Your task to perform on an android device: open app "PUBG MOBILE" (install if not already installed) Image 0: 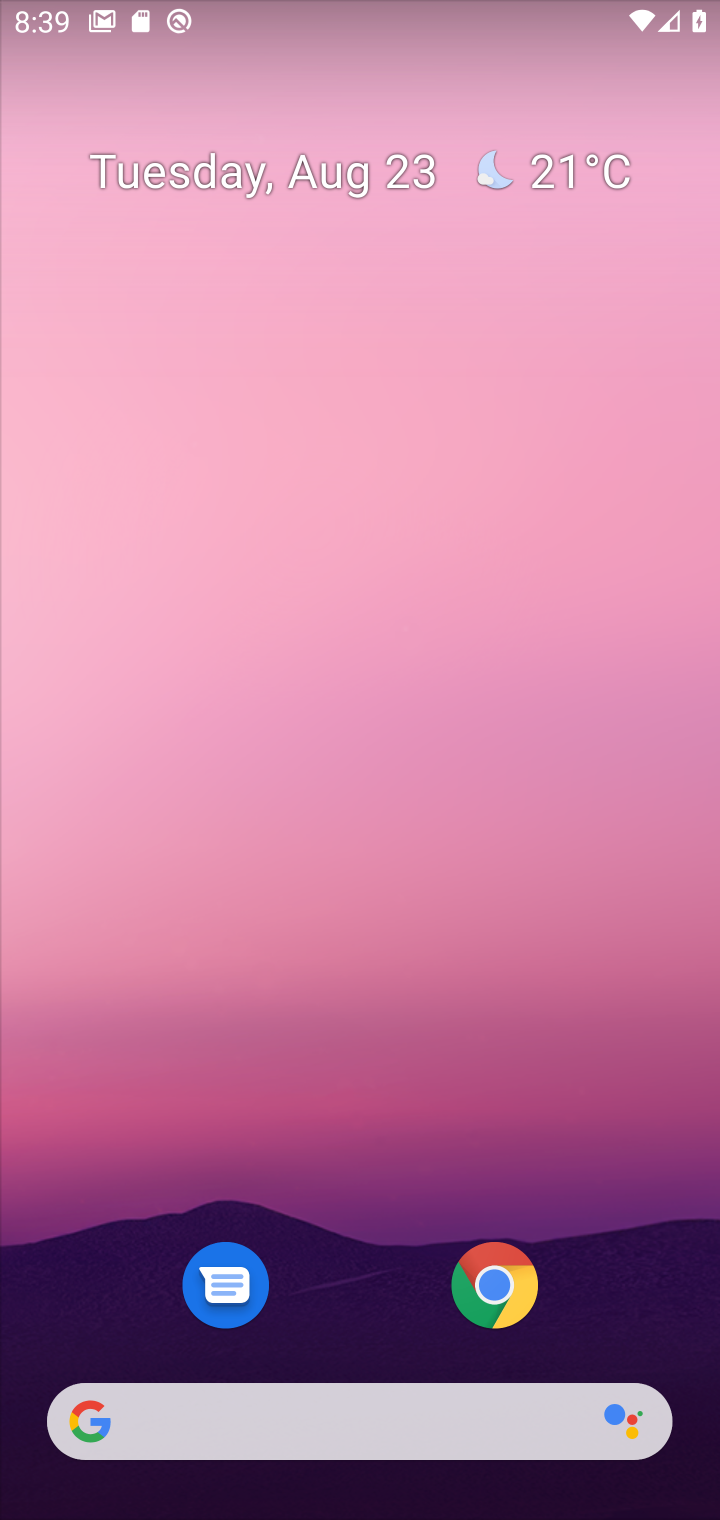
Step 0: drag from (666, 1339) to (585, 128)
Your task to perform on an android device: open app "PUBG MOBILE" (install if not already installed) Image 1: 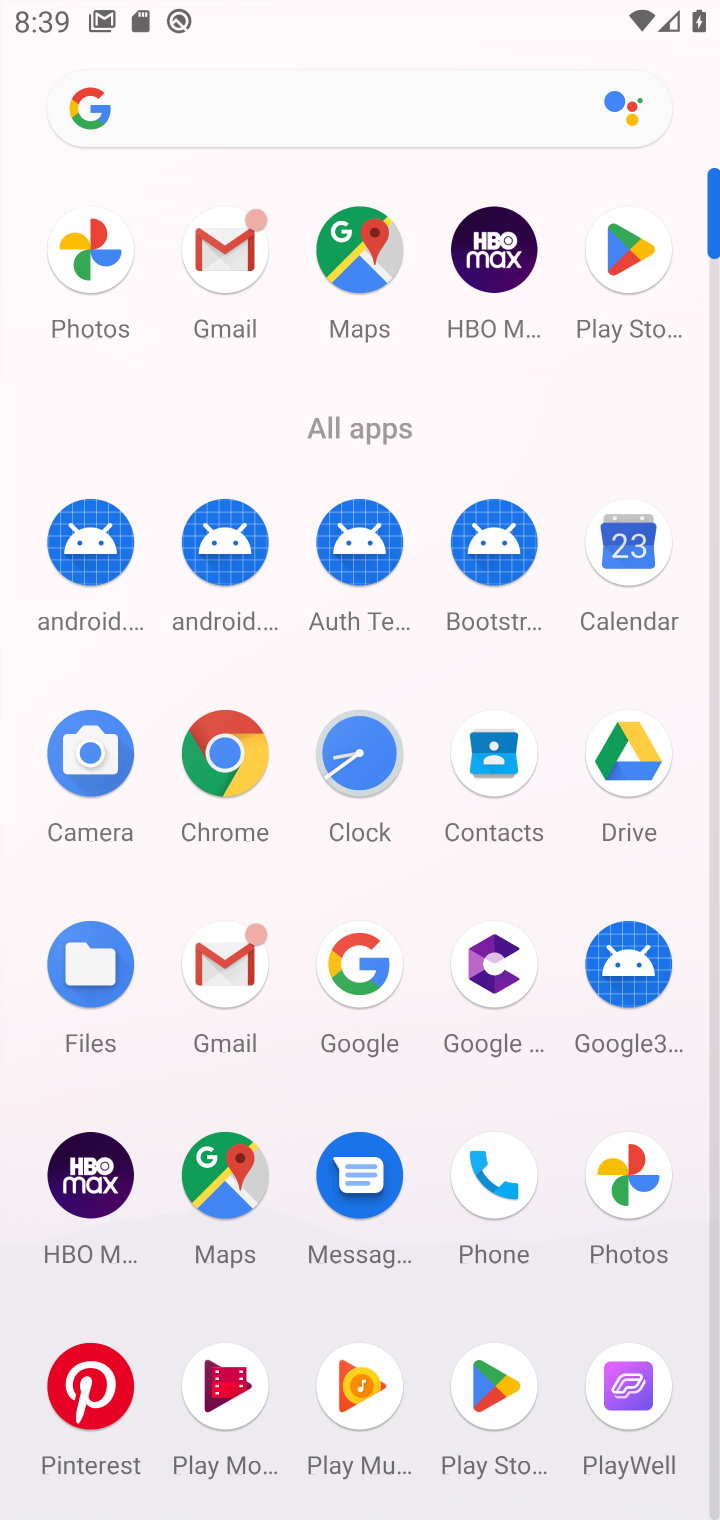
Step 1: click (501, 1389)
Your task to perform on an android device: open app "PUBG MOBILE" (install if not already installed) Image 2: 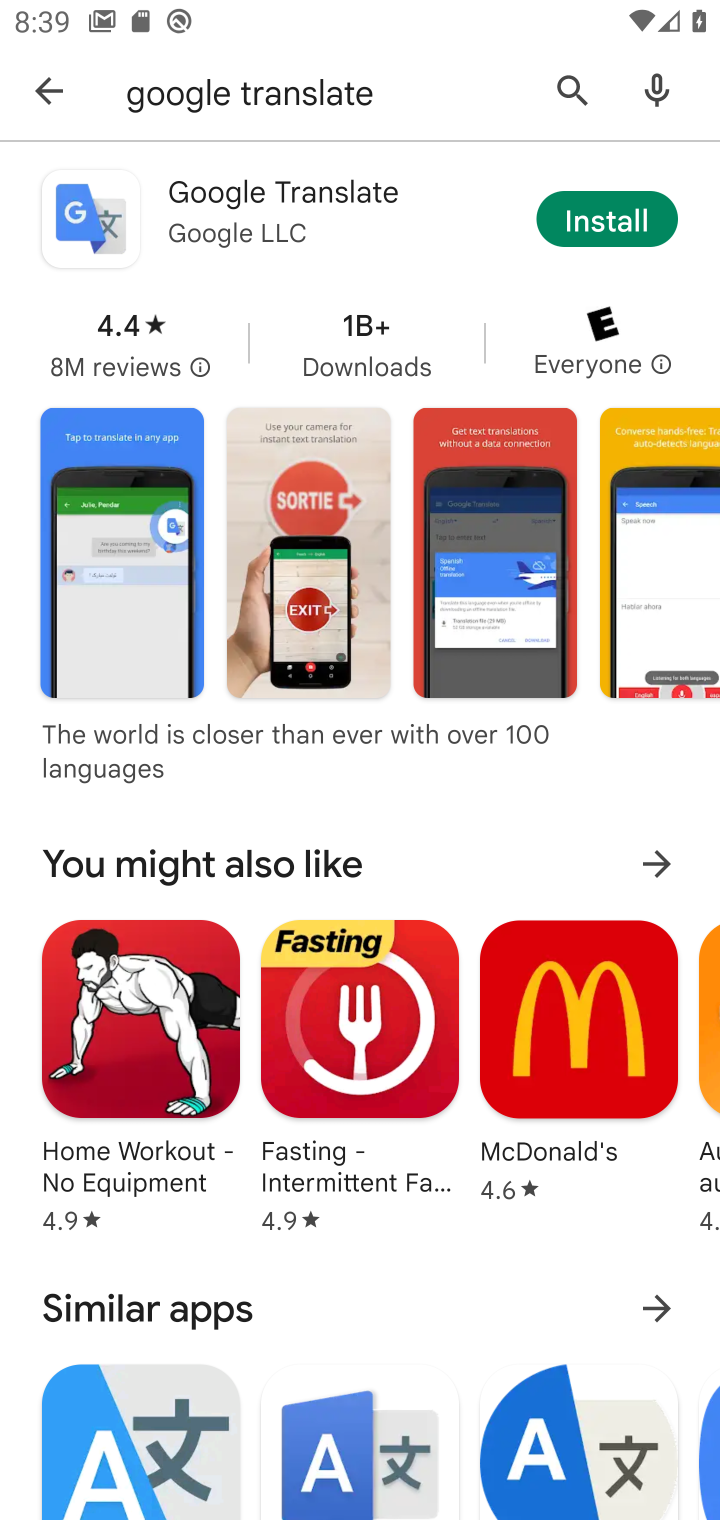
Step 2: click (569, 80)
Your task to perform on an android device: open app "PUBG MOBILE" (install if not already installed) Image 3: 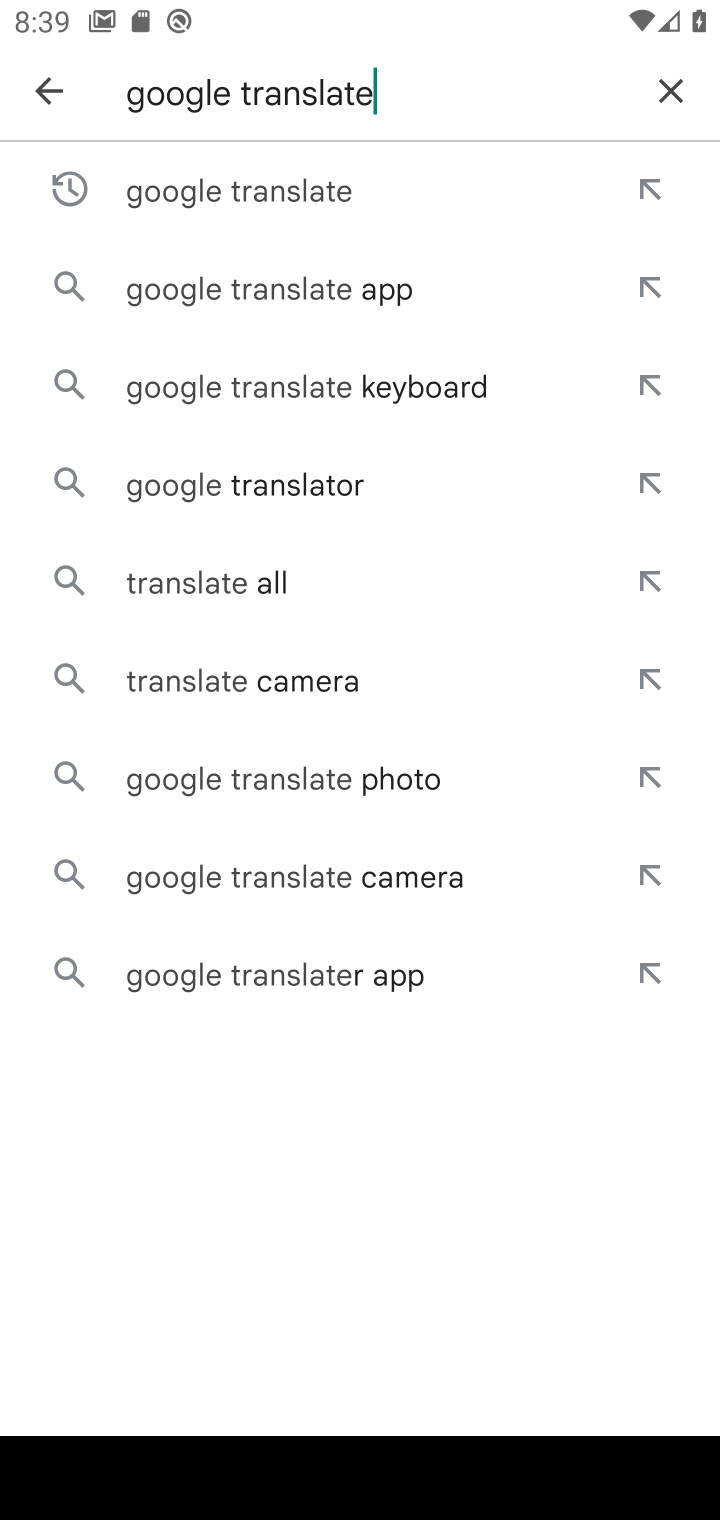
Step 3: click (659, 80)
Your task to perform on an android device: open app "PUBG MOBILE" (install if not already installed) Image 4: 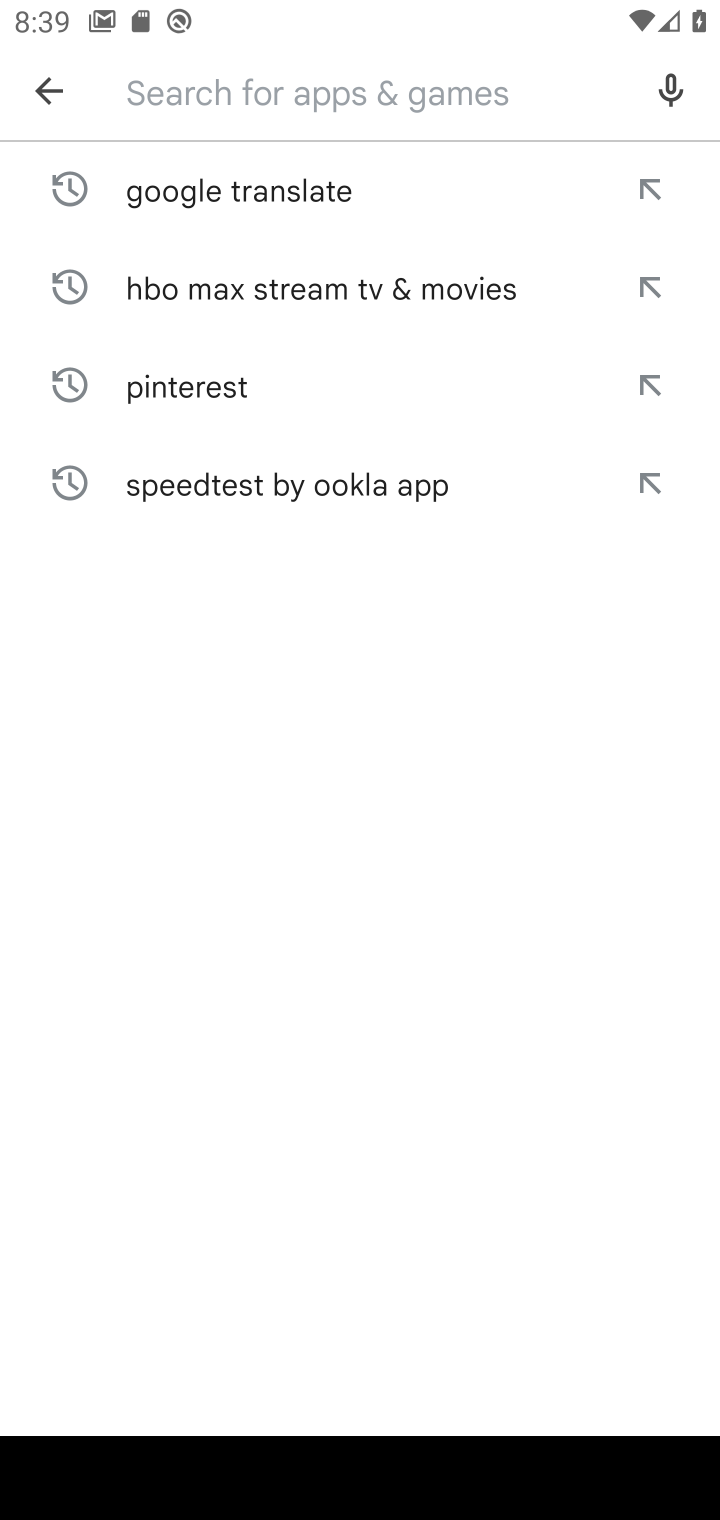
Step 4: type "PUBG MOBILE"
Your task to perform on an android device: open app "PUBG MOBILE" (install if not already installed) Image 5: 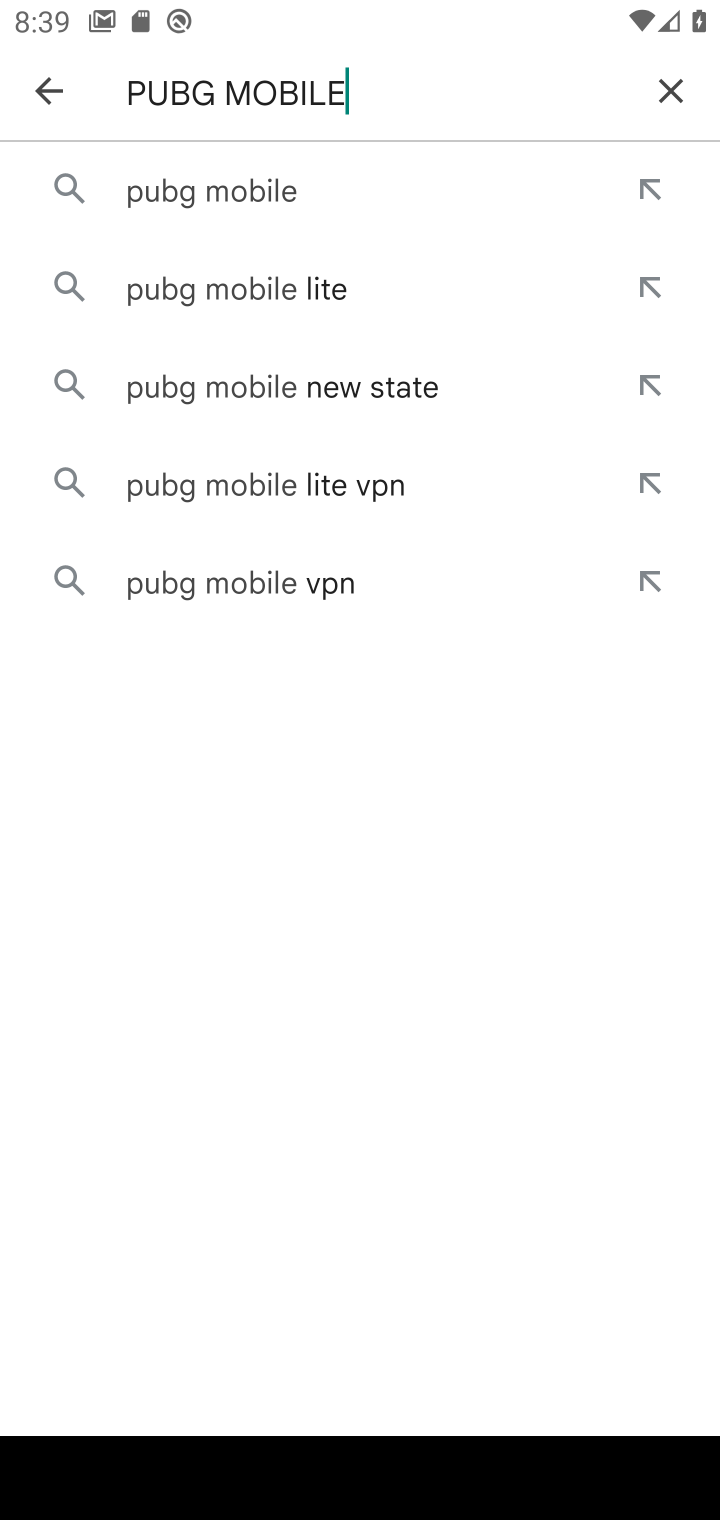
Step 5: click (177, 196)
Your task to perform on an android device: open app "PUBG MOBILE" (install if not already installed) Image 6: 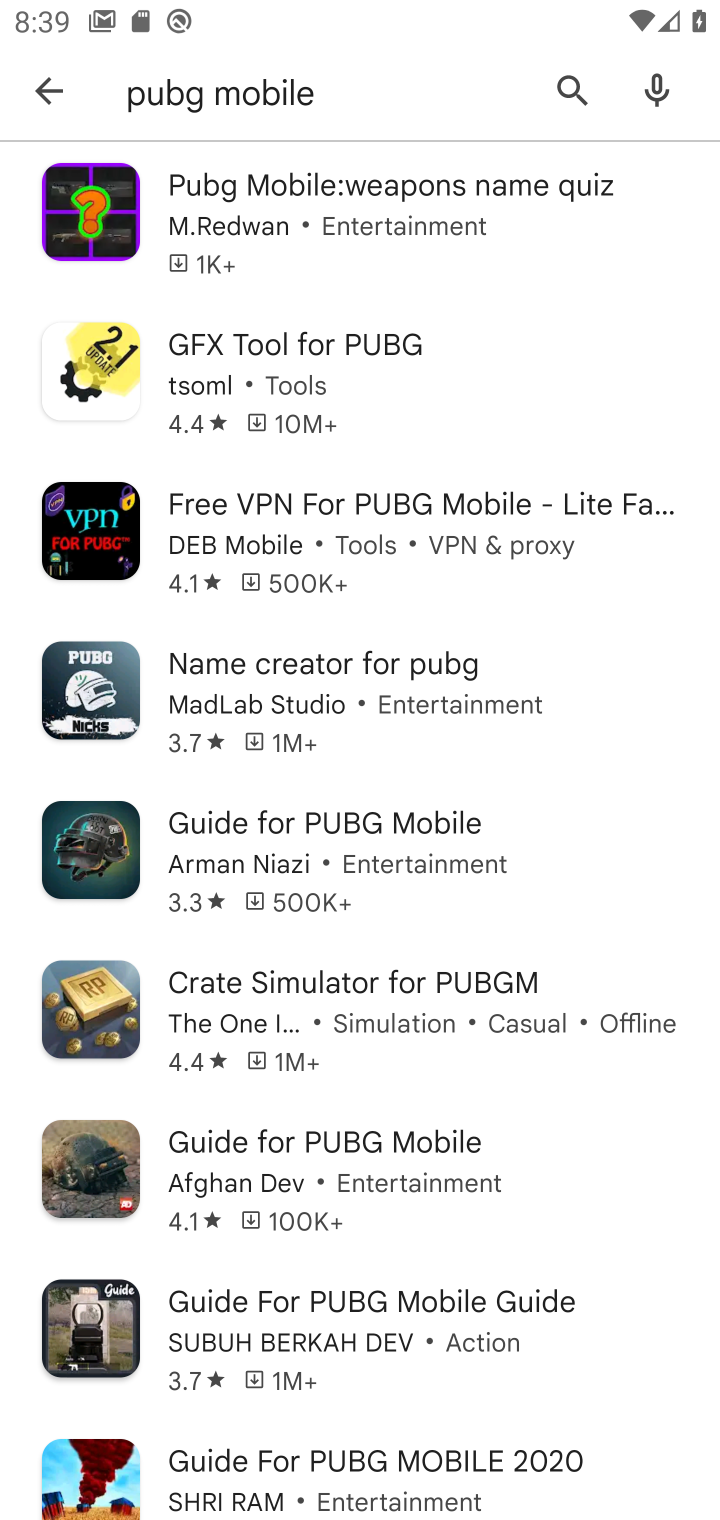
Step 6: task complete